Your task to perform on an android device: toggle improve location accuracy Image 0: 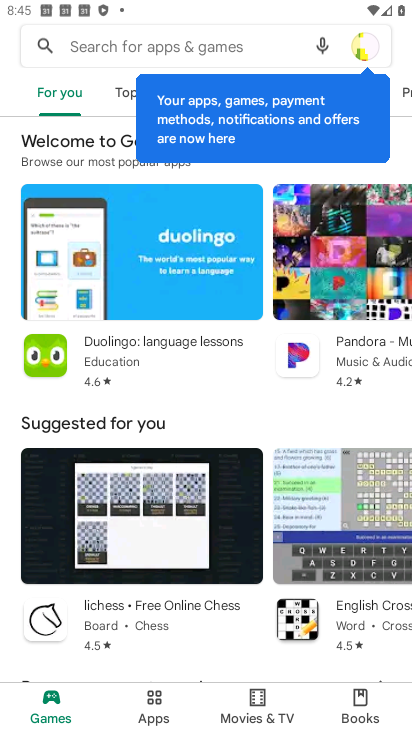
Step 0: press home button
Your task to perform on an android device: toggle improve location accuracy Image 1: 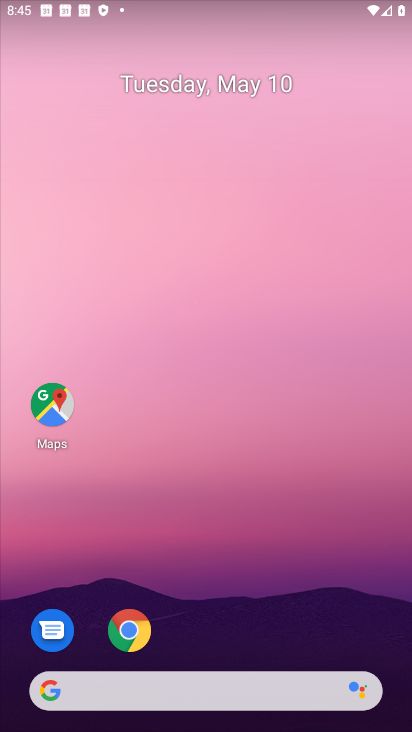
Step 1: drag from (281, 728) to (305, 9)
Your task to perform on an android device: toggle improve location accuracy Image 2: 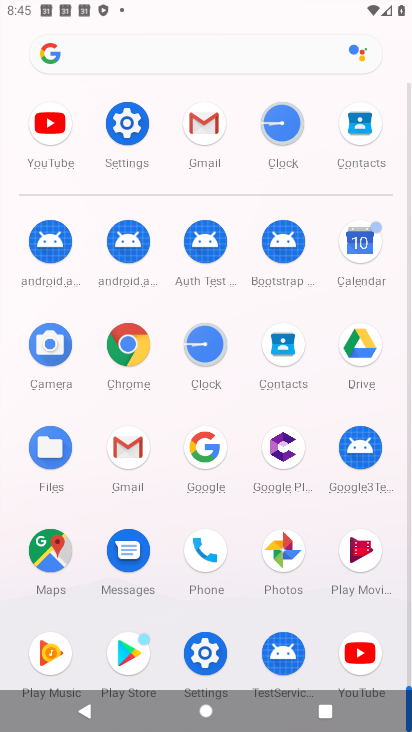
Step 2: click (139, 127)
Your task to perform on an android device: toggle improve location accuracy Image 3: 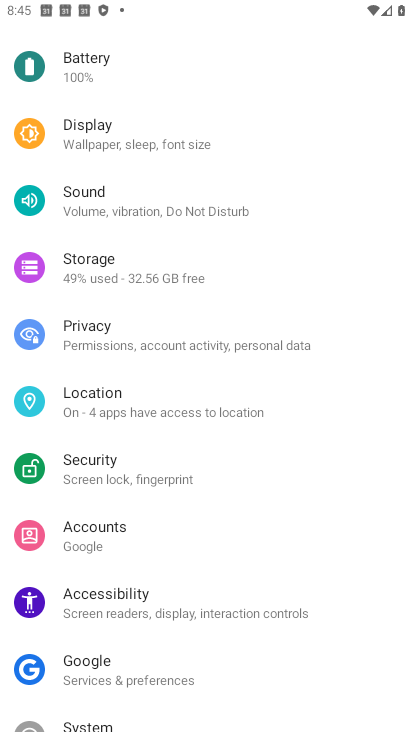
Step 3: click (167, 395)
Your task to perform on an android device: toggle improve location accuracy Image 4: 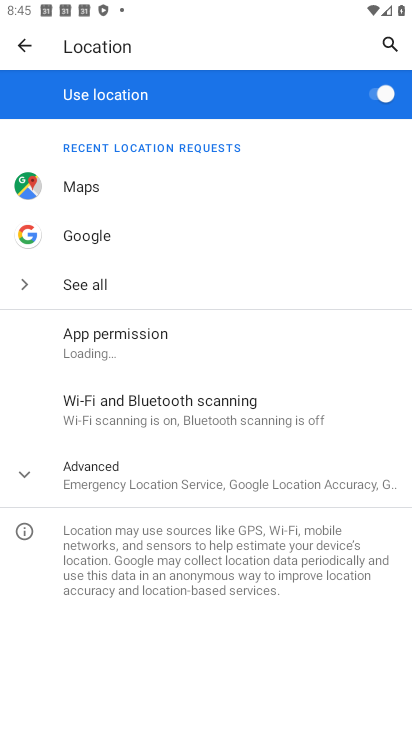
Step 4: click (215, 487)
Your task to perform on an android device: toggle improve location accuracy Image 5: 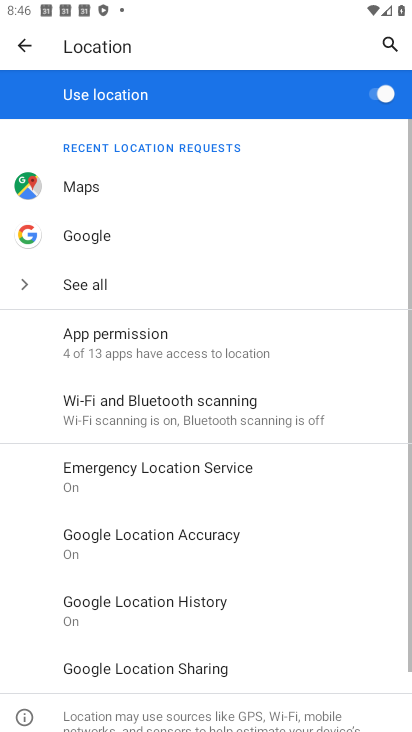
Step 5: click (205, 537)
Your task to perform on an android device: toggle improve location accuracy Image 6: 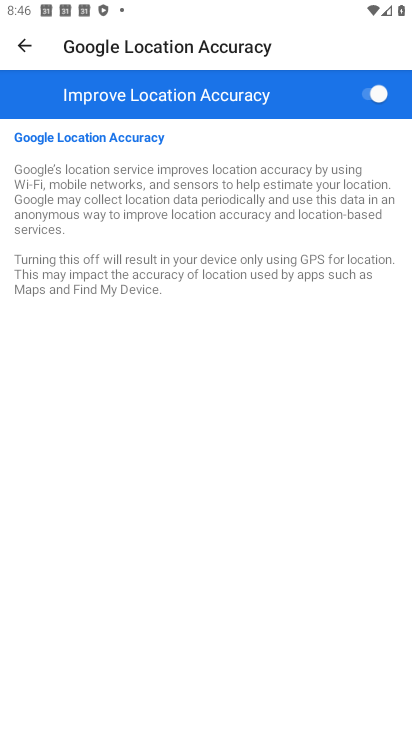
Step 6: click (375, 93)
Your task to perform on an android device: toggle improve location accuracy Image 7: 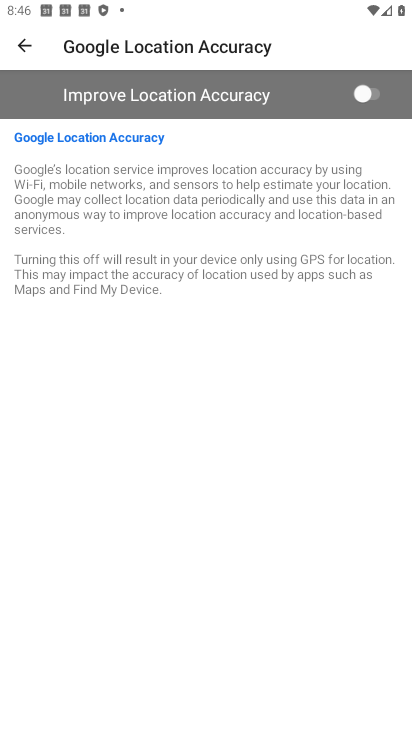
Step 7: task complete